Your task to perform on an android device: Search for vegetarian restaurants on Maps Image 0: 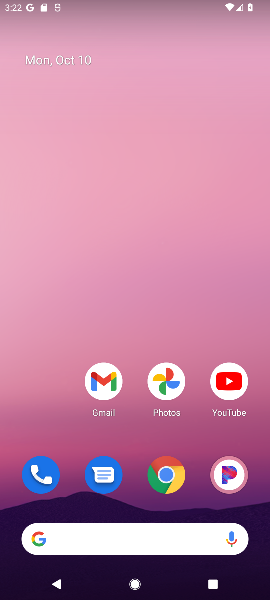
Step 0: drag from (145, 494) to (197, 171)
Your task to perform on an android device: Search for vegetarian restaurants on Maps Image 1: 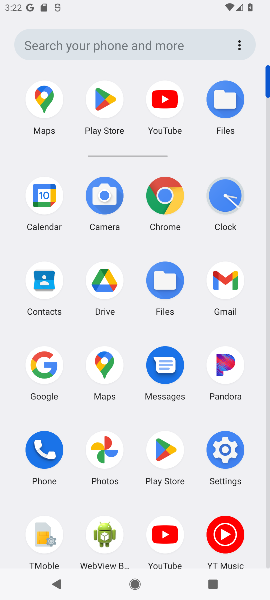
Step 1: click (107, 357)
Your task to perform on an android device: Search for vegetarian restaurants on Maps Image 2: 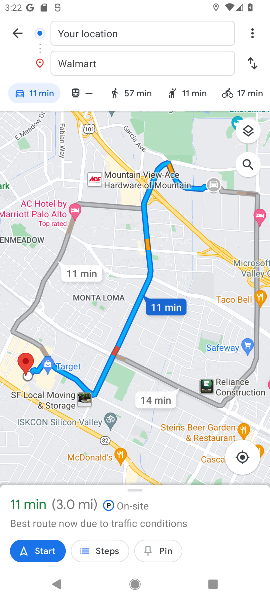
Step 2: click (2, 34)
Your task to perform on an android device: Search for vegetarian restaurants on Maps Image 3: 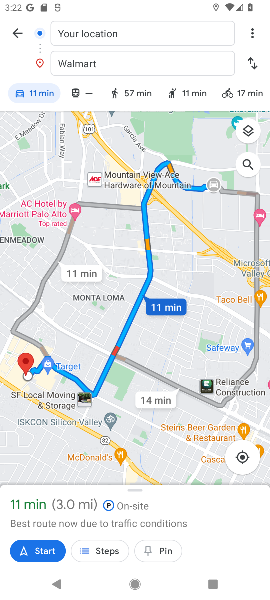
Step 3: click (18, 34)
Your task to perform on an android device: Search for vegetarian restaurants on Maps Image 4: 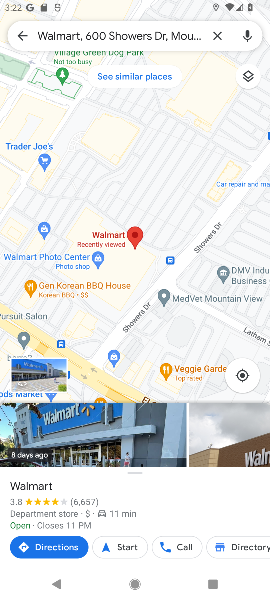
Step 4: click (18, 34)
Your task to perform on an android device: Search for vegetarian restaurants on Maps Image 5: 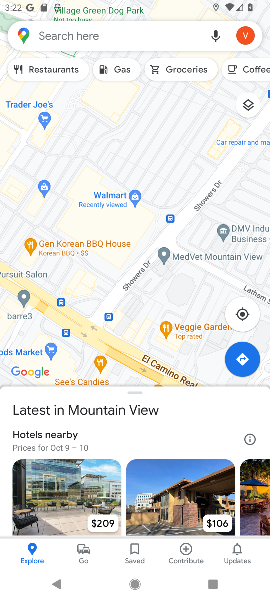
Step 5: click (71, 40)
Your task to perform on an android device: Search for vegetarian restaurants on Maps Image 6: 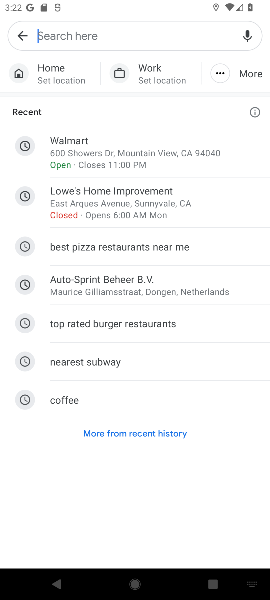
Step 6: type "vegetarian restaurants"
Your task to perform on an android device: Search for vegetarian restaurants on Maps Image 7: 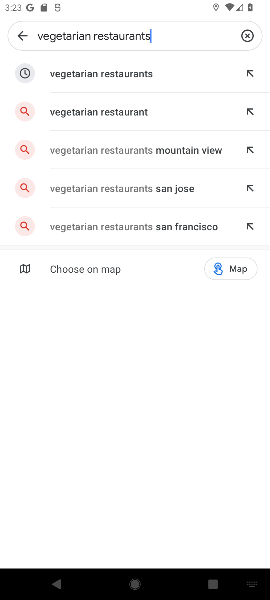
Step 7: click (109, 79)
Your task to perform on an android device: Search for vegetarian restaurants on Maps Image 8: 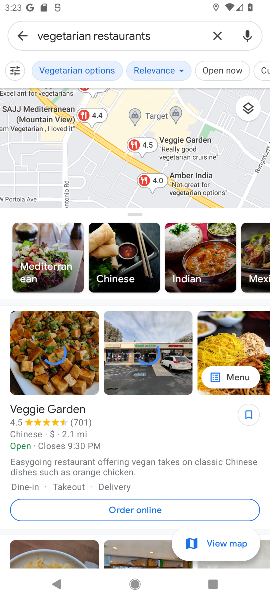
Step 8: task complete